Your task to perform on an android device: turn off location history Image 0: 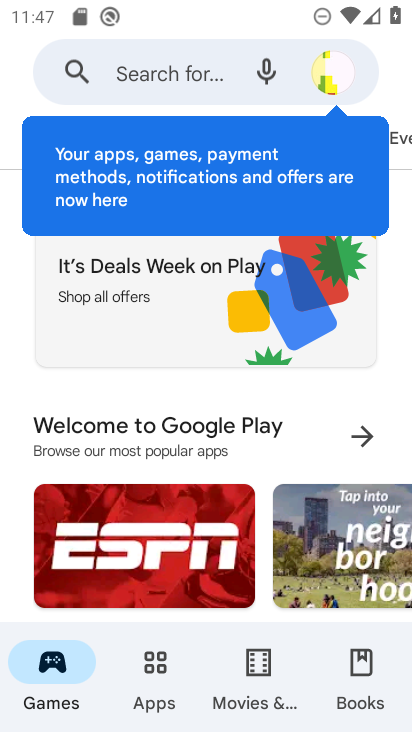
Step 0: press home button
Your task to perform on an android device: turn off location history Image 1: 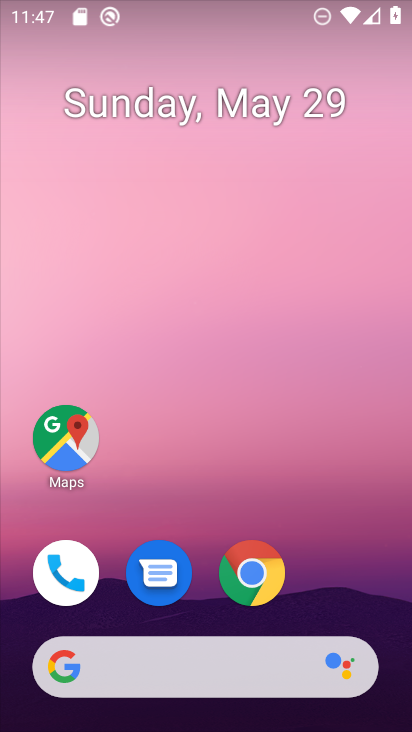
Step 1: drag from (365, 583) to (367, 203)
Your task to perform on an android device: turn off location history Image 2: 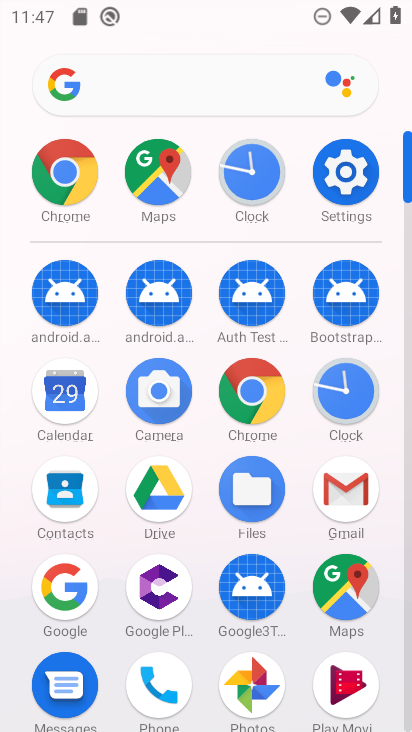
Step 2: click (349, 174)
Your task to perform on an android device: turn off location history Image 3: 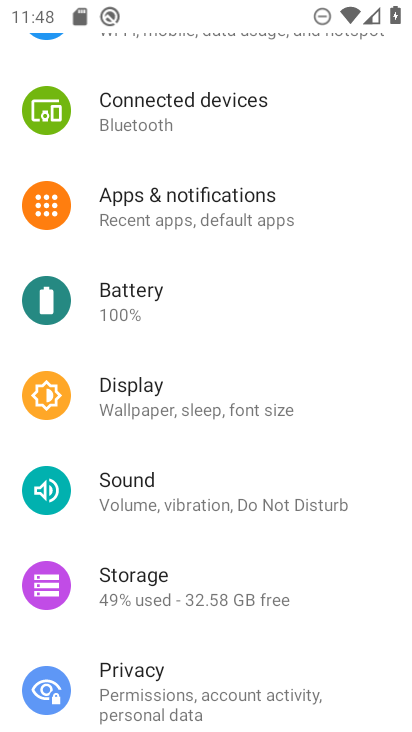
Step 3: drag from (338, 145) to (341, 9)
Your task to perform on an android device: turn off location history Image 4: 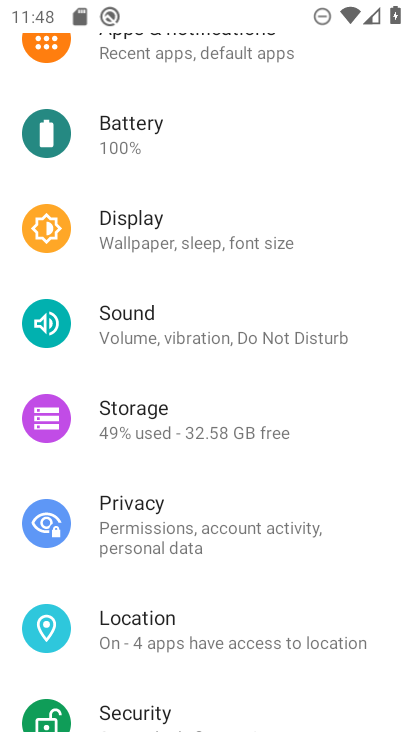
Step 4: click (209, 628)
Your task to perform on an android device: turn off location history Image 5: 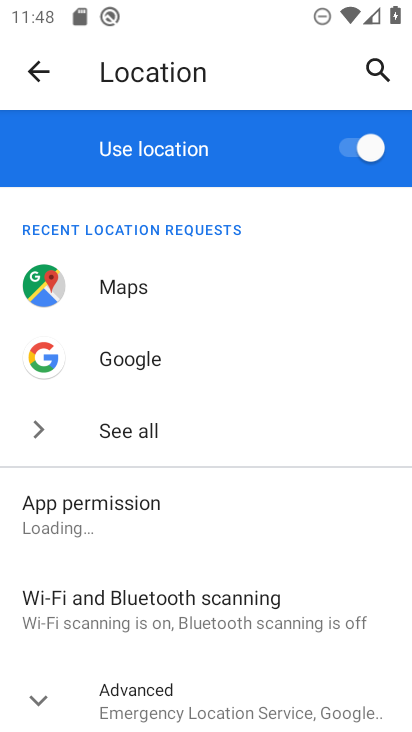
Step 5: click (40, 702)
Your task to perform on an android device: turn off location history Image 6: 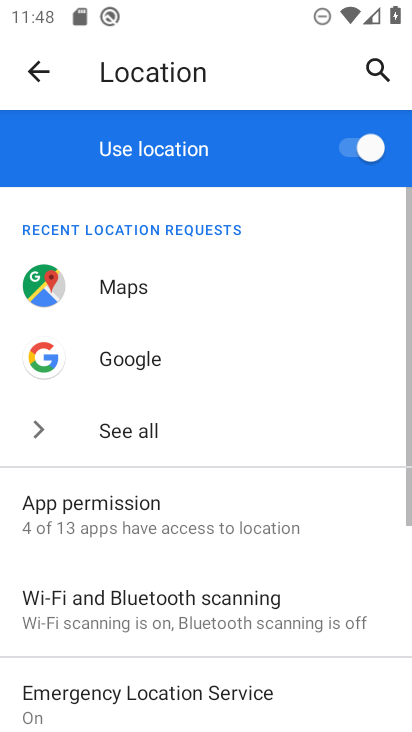
Step 6: drag from (323, 673) to (312, 377)
Your task to perform on an android device: turn off location history Image 7: 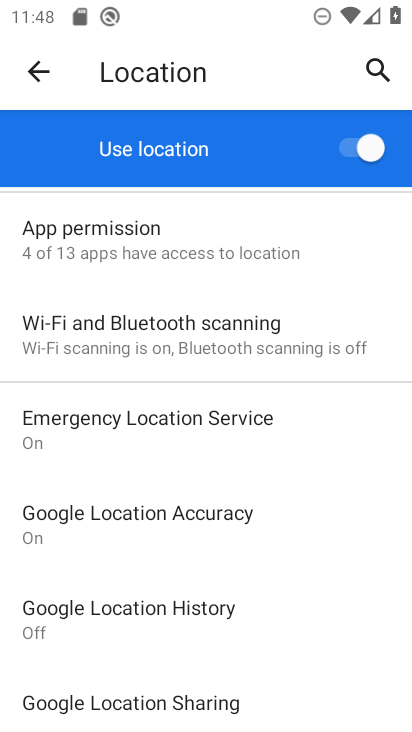
Step 7: click (178, 618)
Your task to perform on an android device: turn off location history Image 8: 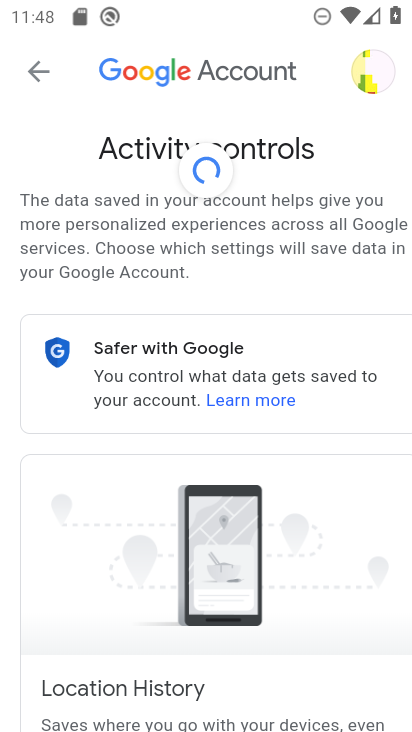
Step 8: task complete